Your task to perform on an android device: Go to location settings Image 0: 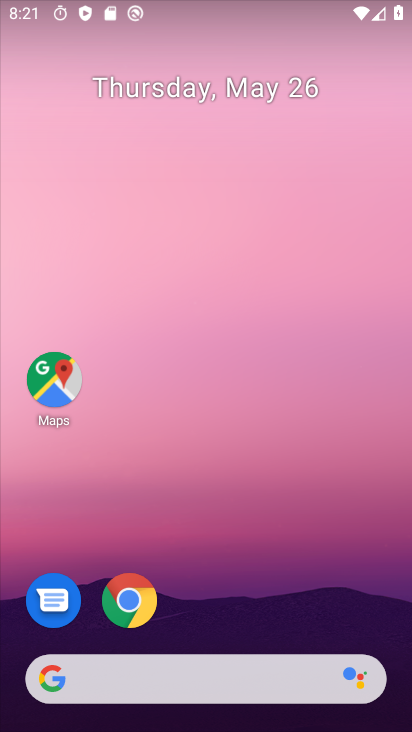
Step 0: drag from (227, 597) to (236, 230)
Your task to perform on an android device: Go to location settings Image 1: 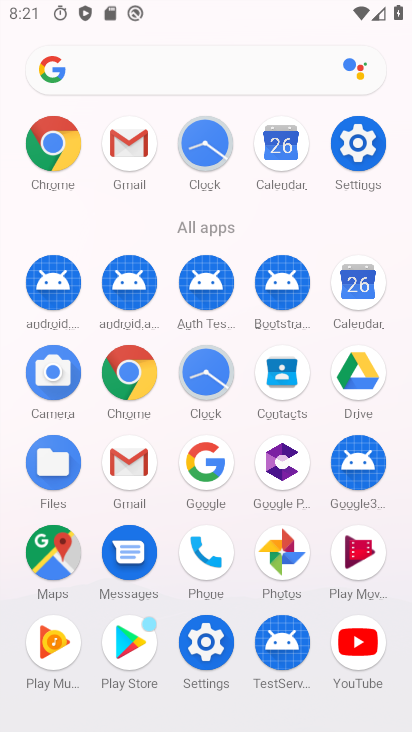
Step 1: click (358, 139)
Your task to perform on an android device: Go to location settings Image 2: 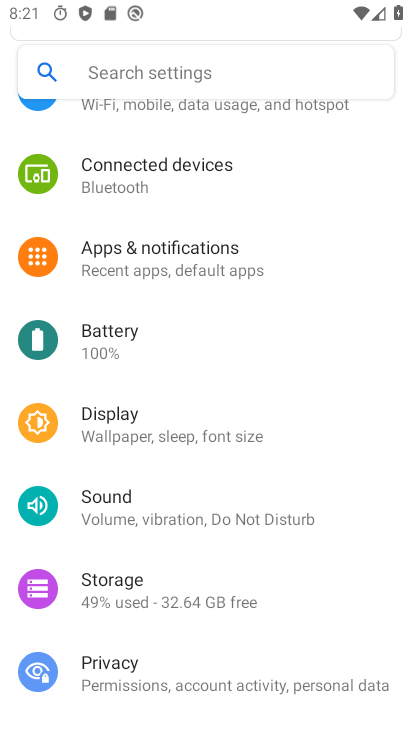
Step 2: drag from (233, 581) to (276, 336)
Your task to perform on an android device: Go to location settings Image 3: 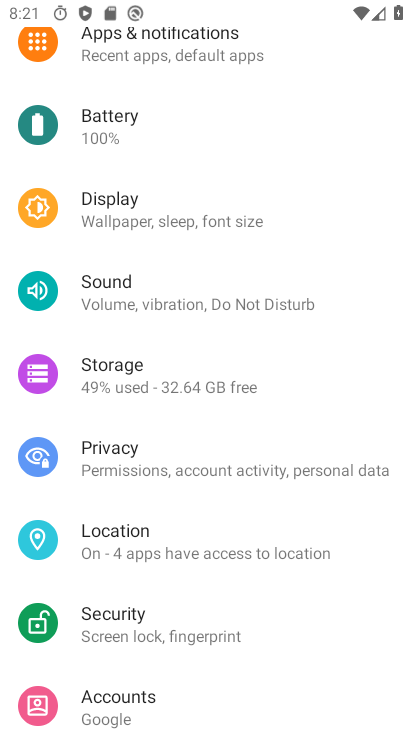
Step 3: click (173, 546)
Your task to perform on an android device: Go to location settings Image 4: 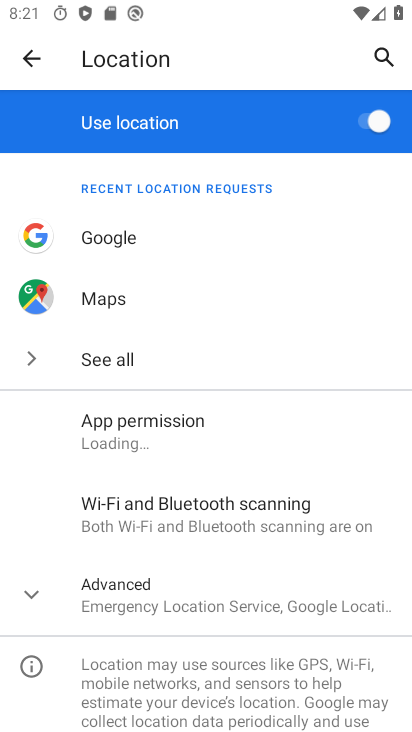
Step 4: task complete